Your task to perform on an android device: Open eBay Image 0: 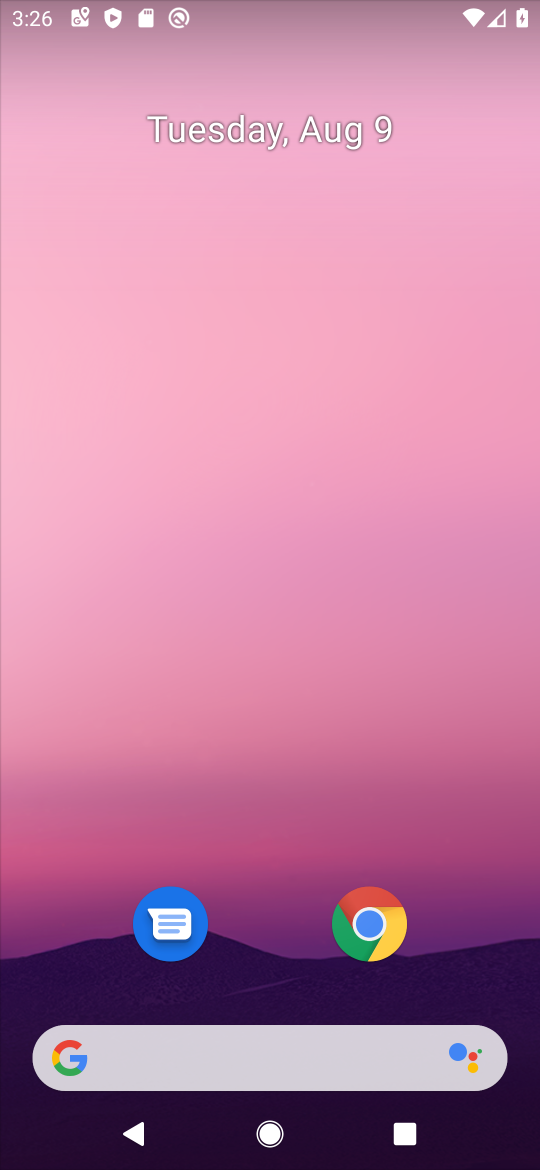
Step 0: click (367, 926)
Your task to perform on an android device: Open eBay Image 1: 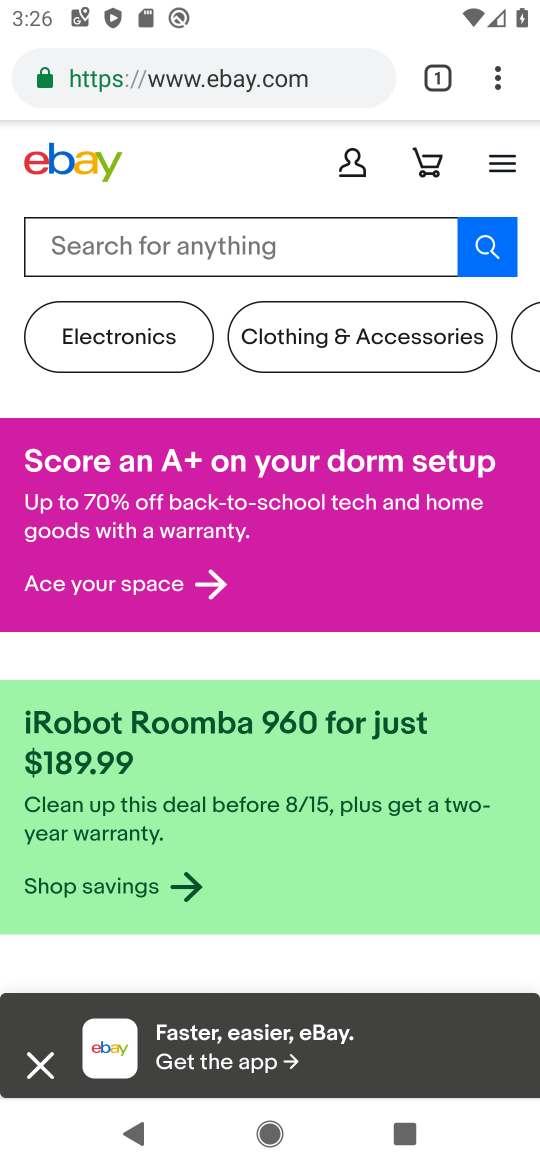
Step 1: click (339, 92)
Your task to perform on an android device: Open eBay Image 2: 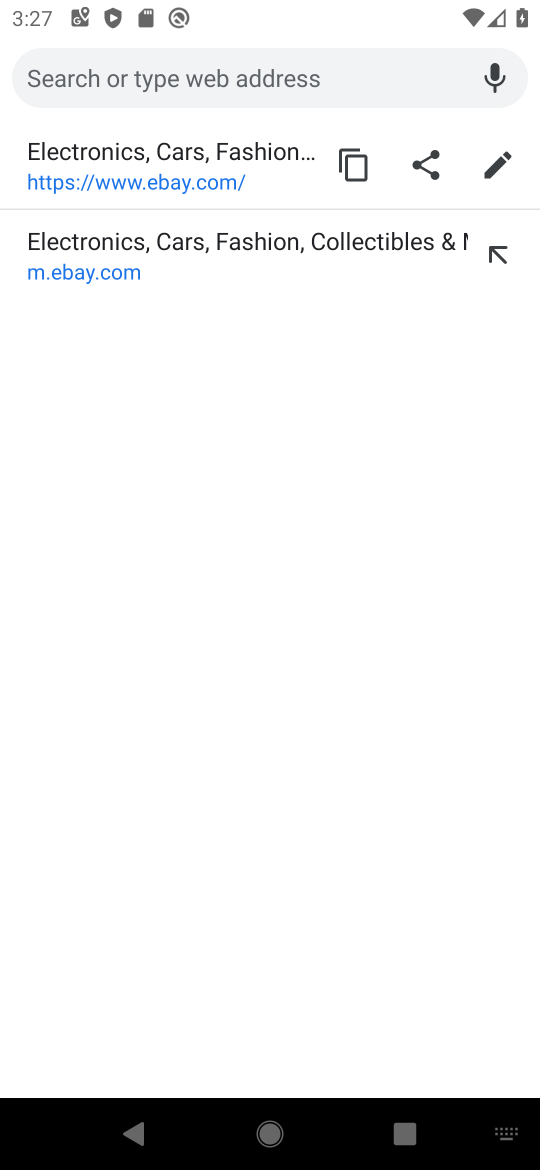
Step 2: type "eBay"
Your task to perform on an android device: Open eBay Image 3: 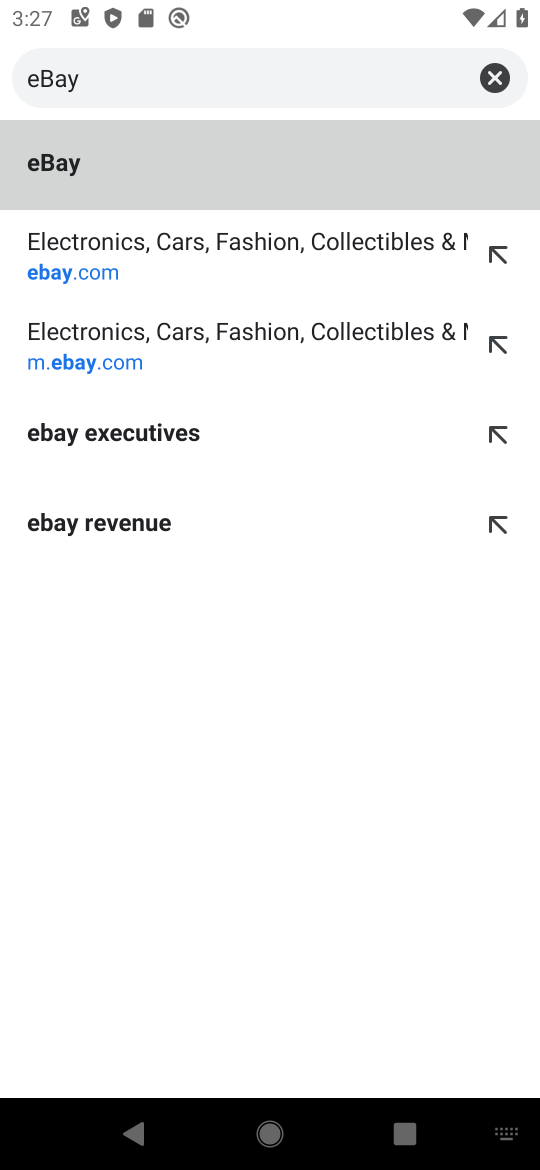
Step 3: click (269, 173)
Your task to perform on an android device: Open eBay Image 4: 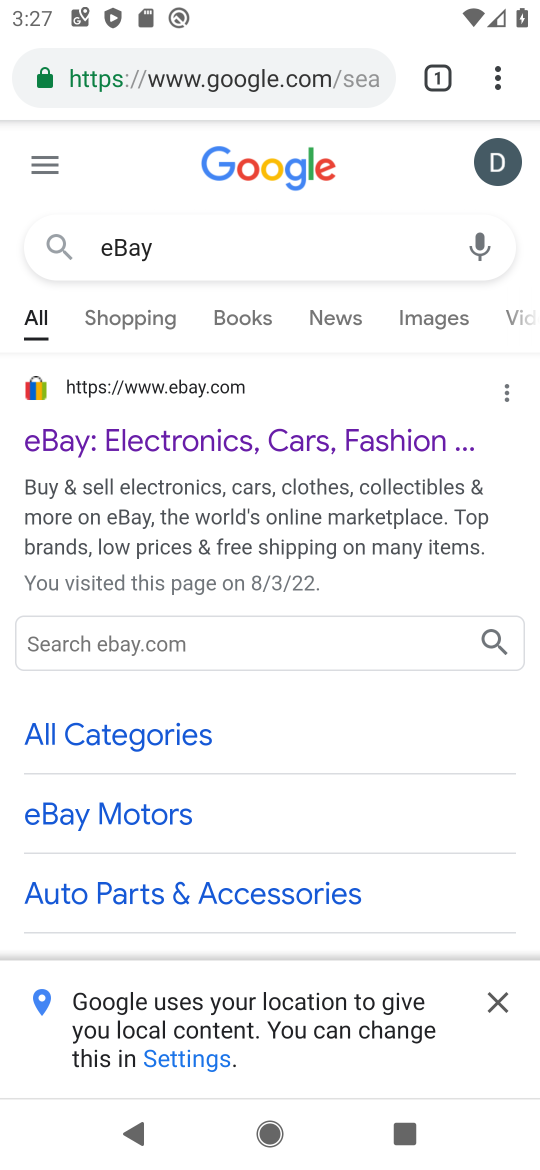
Step 4: click (216, 437)
Your task to perform on an android device: Open eBay Image 5: 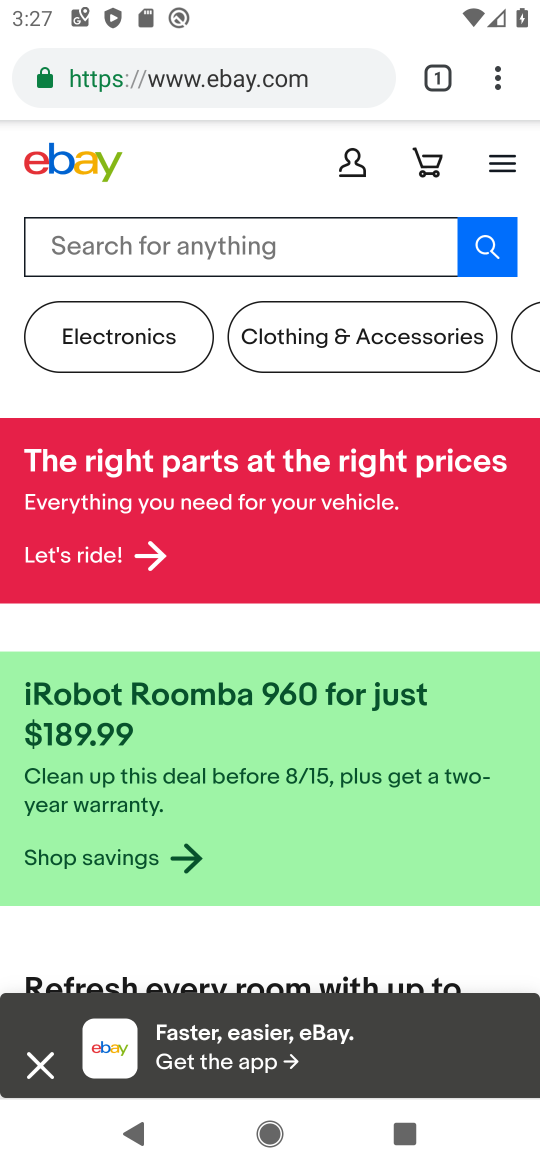
Step 5: task complete